Your task to perform on an android device: What is the recent news? Image 0: 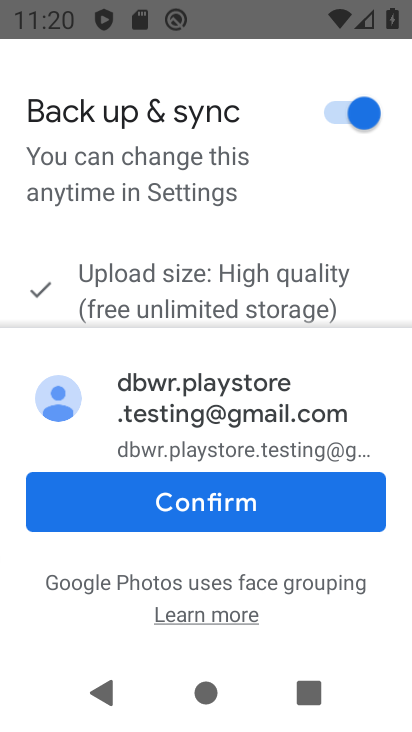
Step 0: press home button
Your task to perform on an android device: What is the recent news? Image 1: 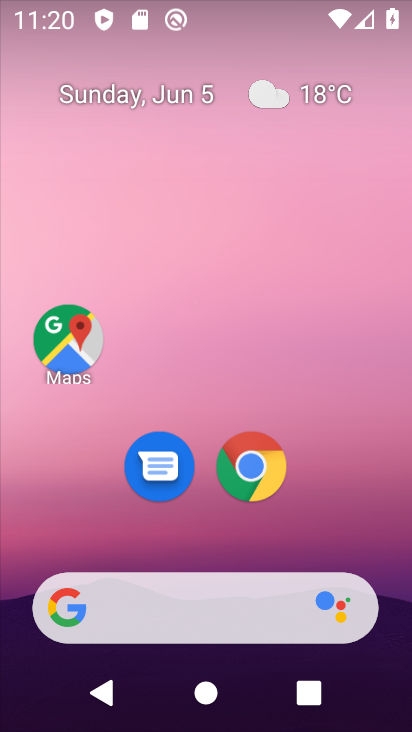
Step 1: drag from (315, 485) to (319, 133)
Your task to perform on an android device: What is the recent news? Image 2: 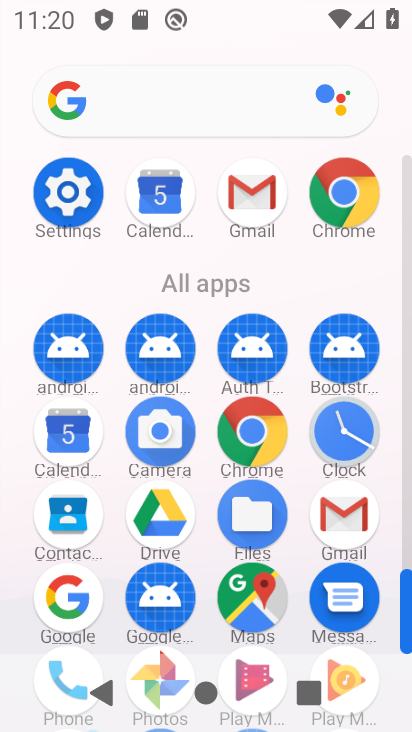
Step 2: click (251, 443)
Your task to perform on an android device: What is the recent news? Image 3: 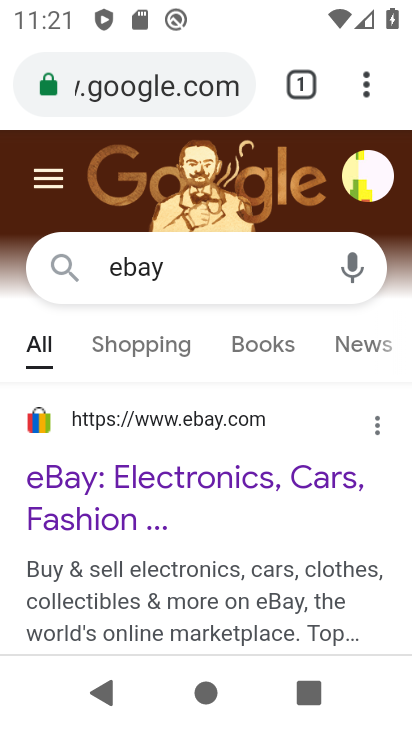
Step 3: click (173, 88)
Your task to perform on an android device: What is the recent news? Image 4: 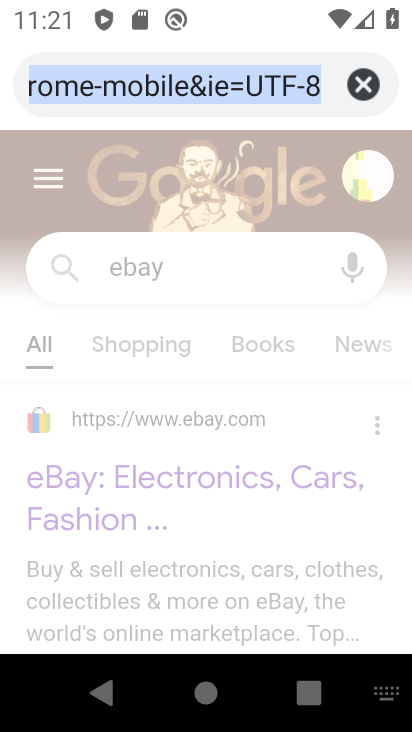
Step 4: click (352, 85)
Your task to perform on an android device: What is the recent news? Image 5: 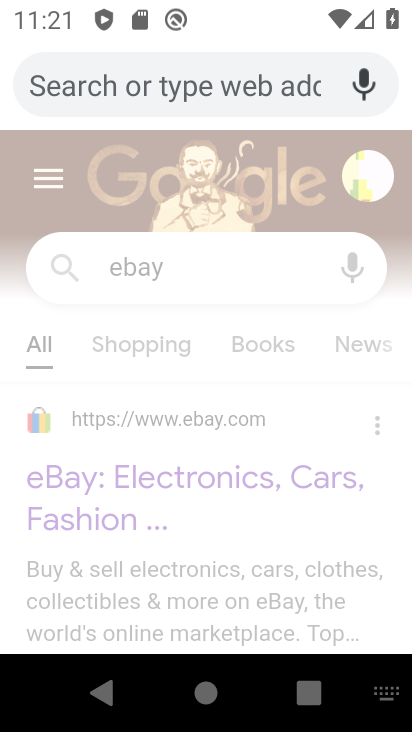
Step 5: type "what is the recent news"
Your task to perform on an android device: What is the recent news? Image 6: 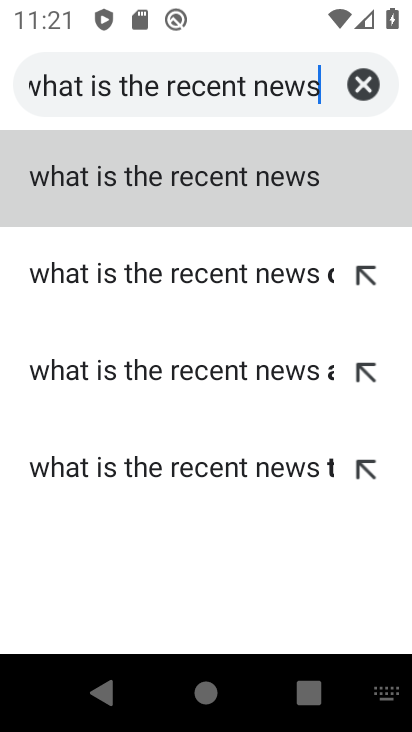
Step 6: click (295, 177)
Your task to perform on an android device: What is the recent news? Image 7: 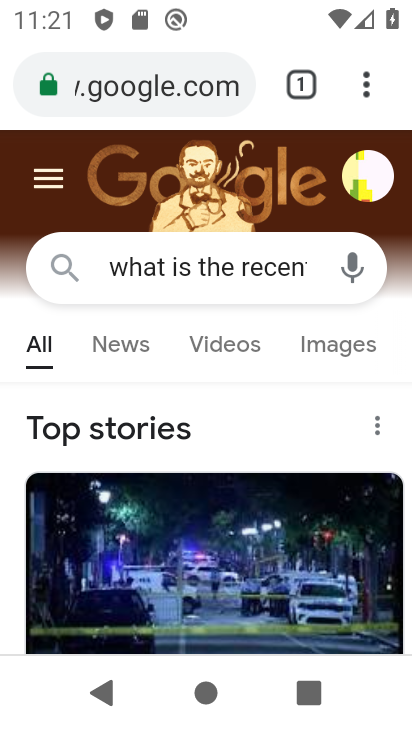
Step 7: task complete